Your task to perform on an android device: Go to Google Image 0: 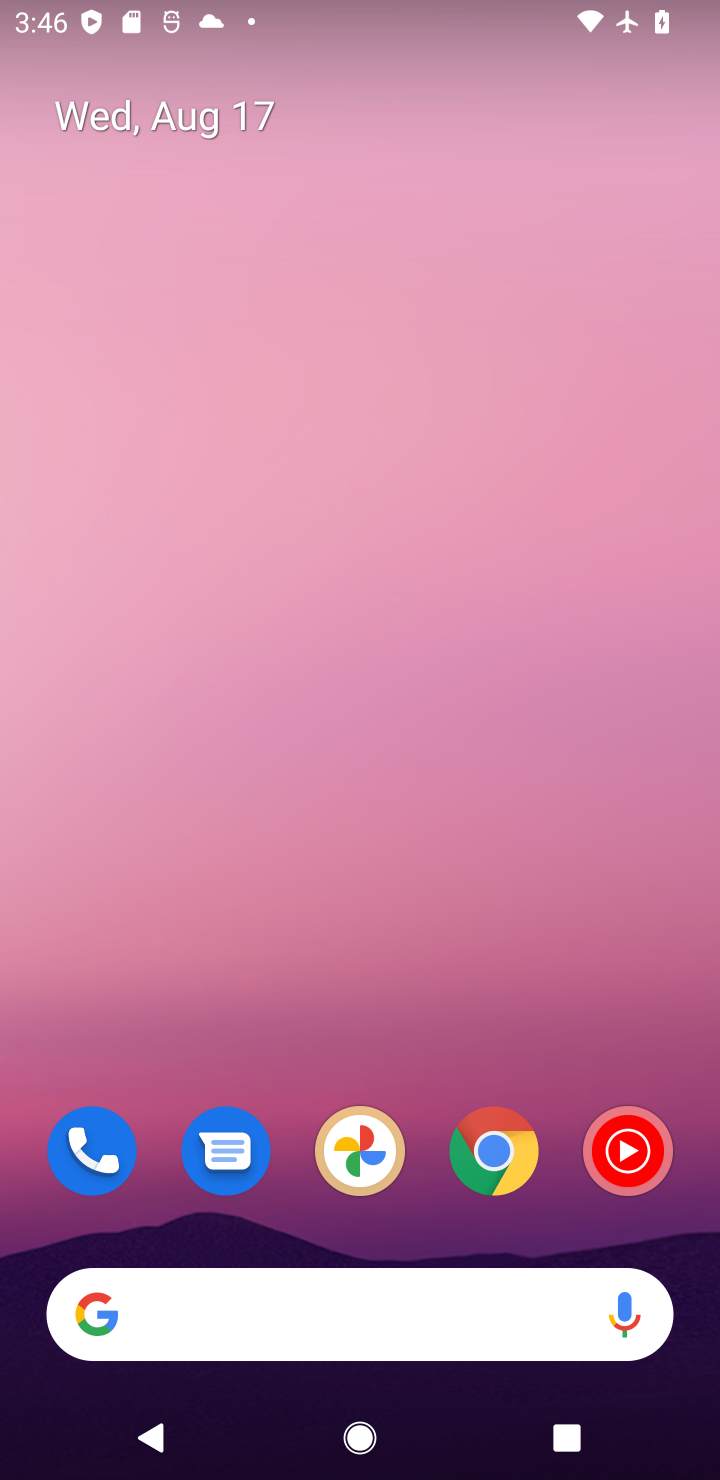
Step 0: drag from (434, 1051) to (557, 269)
Your task to perform on an android device: Go to Google Image 1: 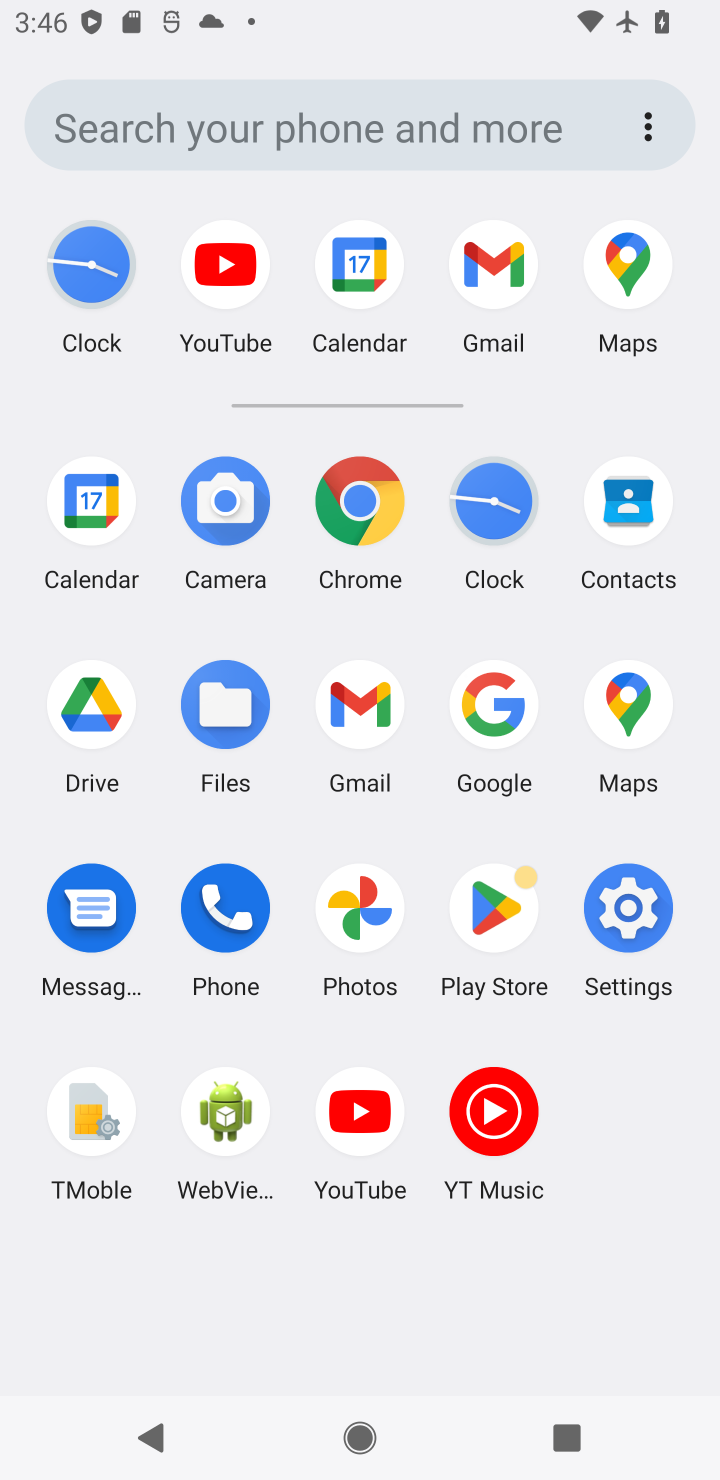
Step 1: click (472, 708)
Your task to perform on an android device: Go to Google Image 2: 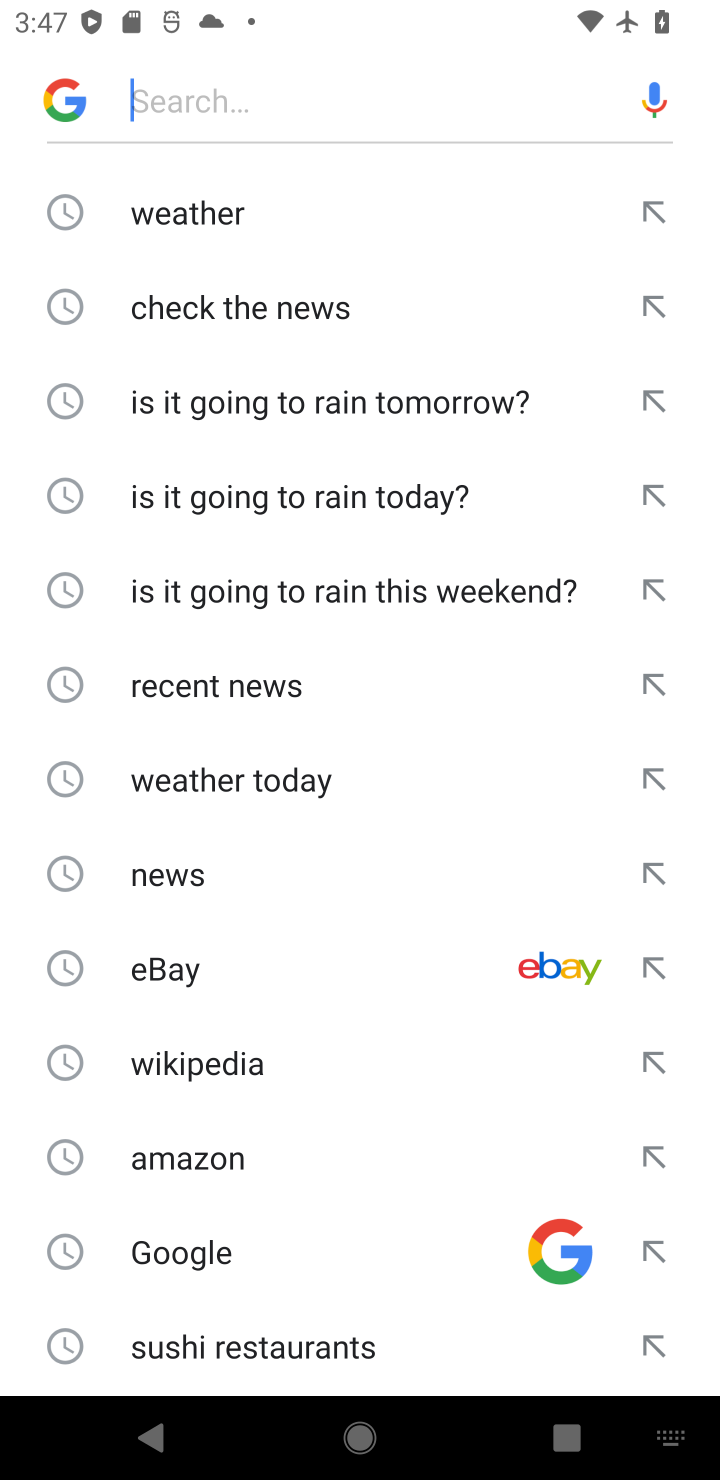
Step 2: task complete